Your task to perform on an android device: What's the weather today? Image 0: 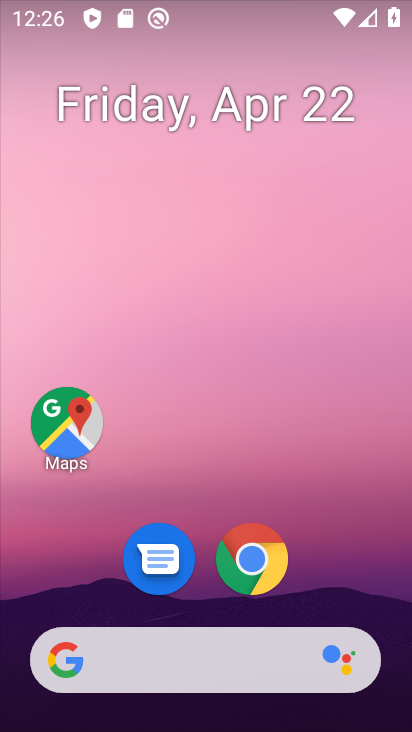
Step 0: drag from (372, 612) to (299, 33)
Your task to perform on an android device: What's the weather today? Image 1: 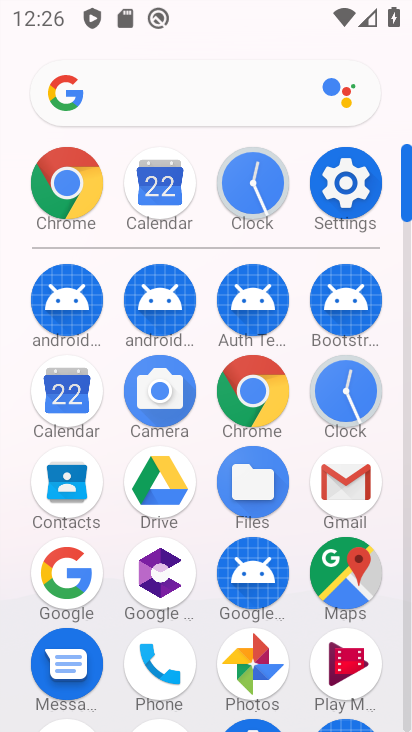
Step 1: press back button
Your task to perform on an android device: What's the weather today? Image 2: 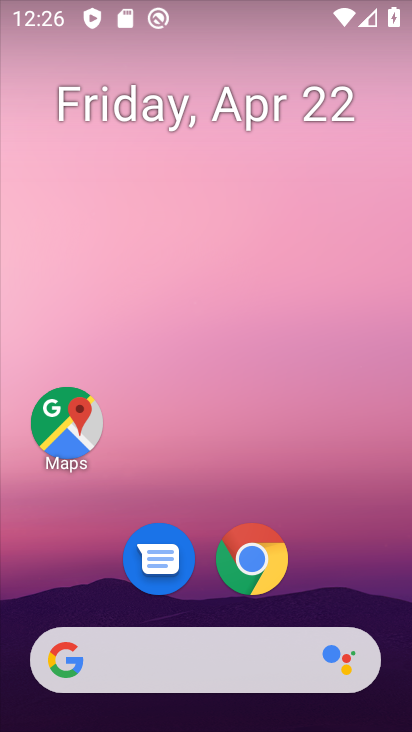
Step 2: click (165, 649)
Your task to perform on an android device: What's the weather today? Image 3: 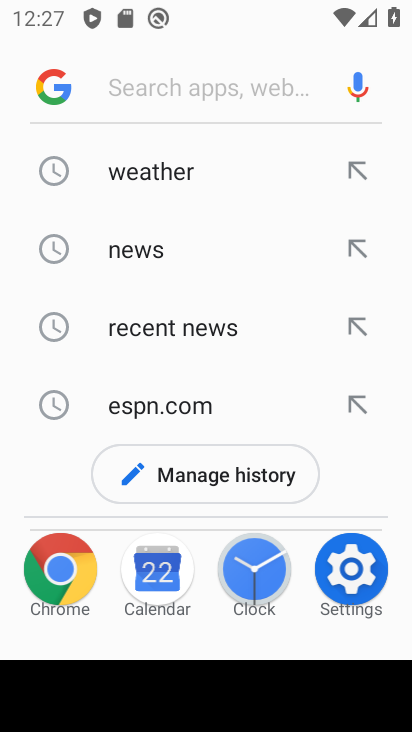
Step 3: click (198, 188)
Your task to perform on an android device: What's the weather today? Image 4: 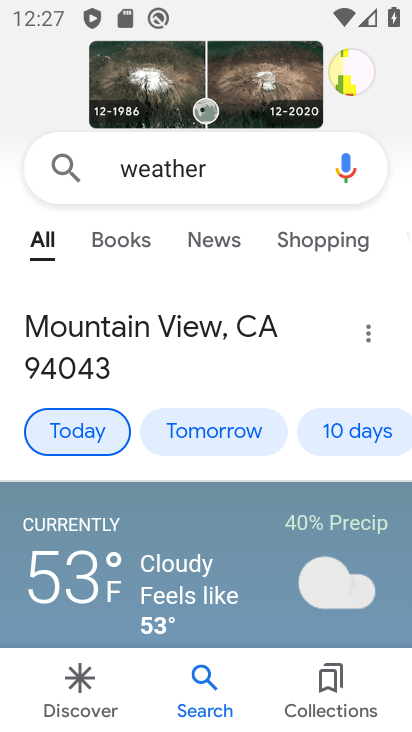
Step 4: task complete